Your task to perform on an android device: Open Google Chrome Image 0: 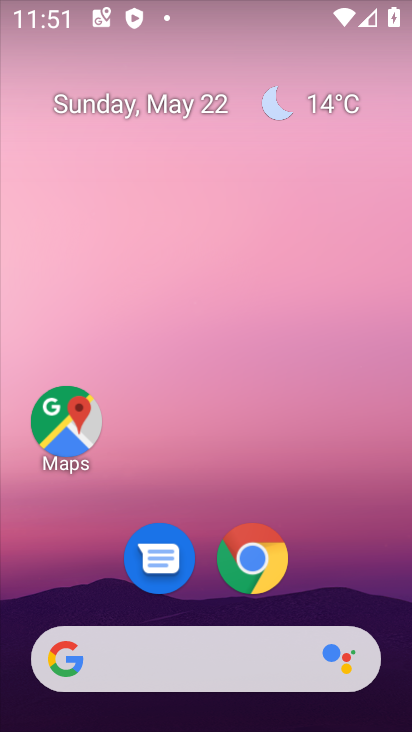
Step 0: click (258, 560)
Your task to perform on an android device: Open Google Chrome Image 1: 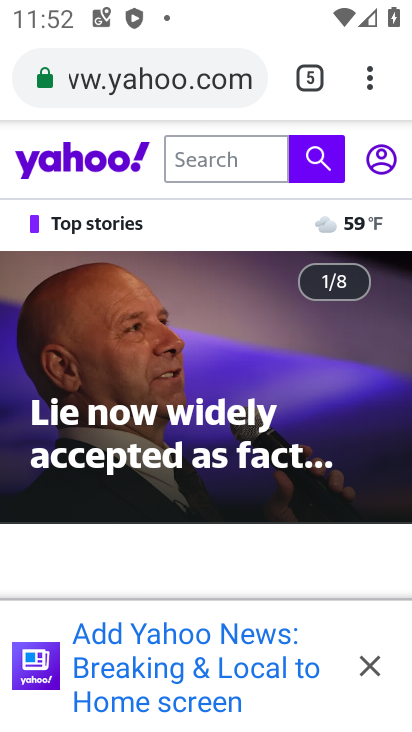
Step 1: task complete